Your task to perform on an android device: check out phone information Image 0: 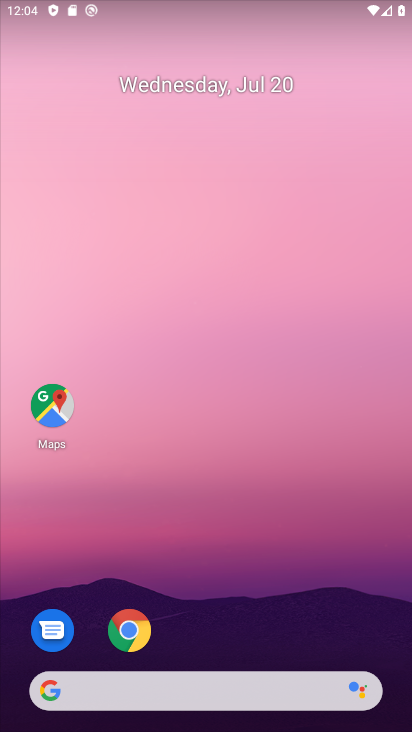
Step 0: drag from (76, 353) to (201, 86)
Your task to perform on an android device: check out phone information Image 1: 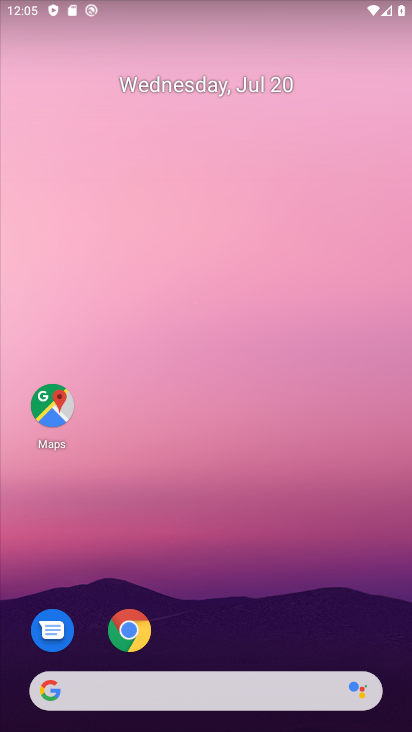
Step 1: drag from (111, 358) to (222, 52)
Your task to perform on an android device: check out phone information Image 2: 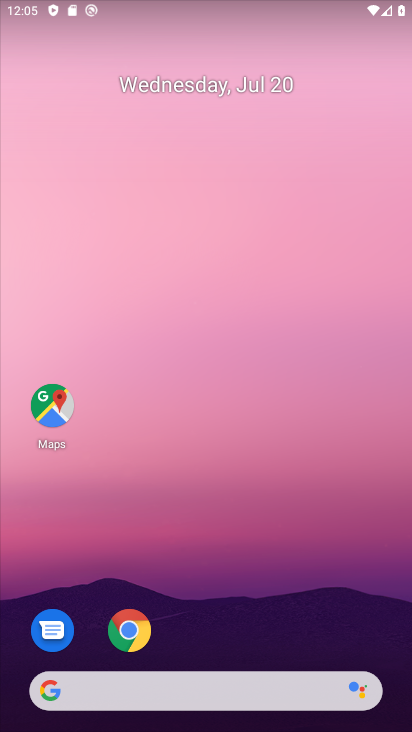
Step 2: drag from (23, 550) to (227, 74)
Your task to perform on an android device: check out phone information Image 3: 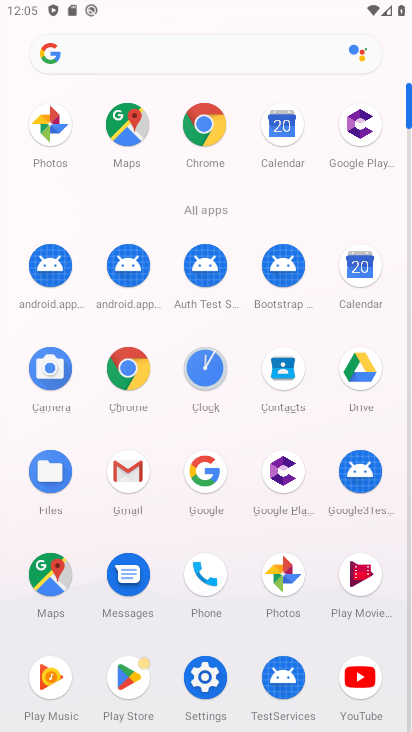
Step 3: click (209, 581)
Your task to perform on an android device: check out phone information Image 4: 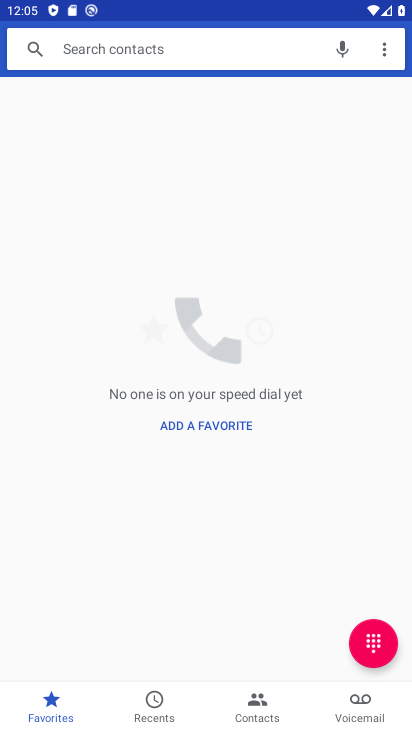
Step 4: task complete